Your task to perform on an android device: delete a single message in the gmail app Image 0: 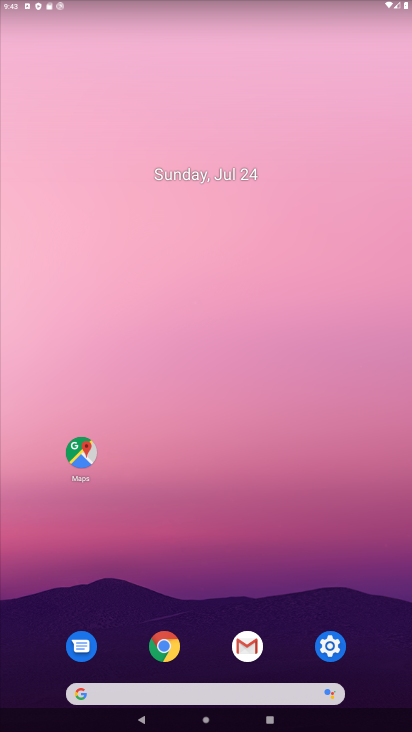
Step 0: click (247, 648)
Your task to perform on an android device: delete a single message in the gmail app Image 1: 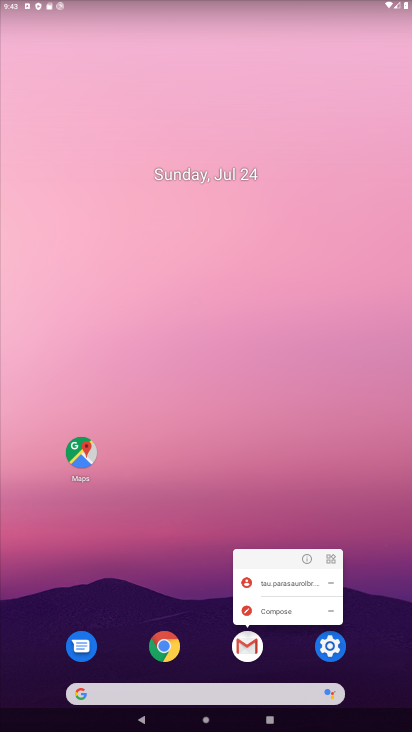
Step 1: click (247, 645)
Your task to perform on an android device: delete a single message in the gmail app Image 2: 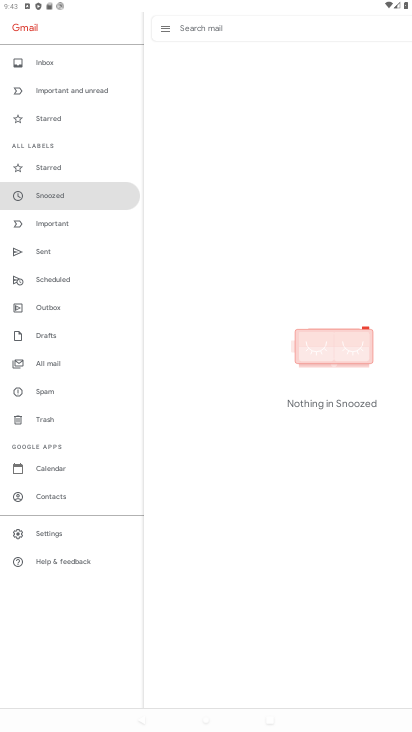
Step 2: click (58, 366)
Your task to perform on an android device: delete a single message in the gmail app Image 3: 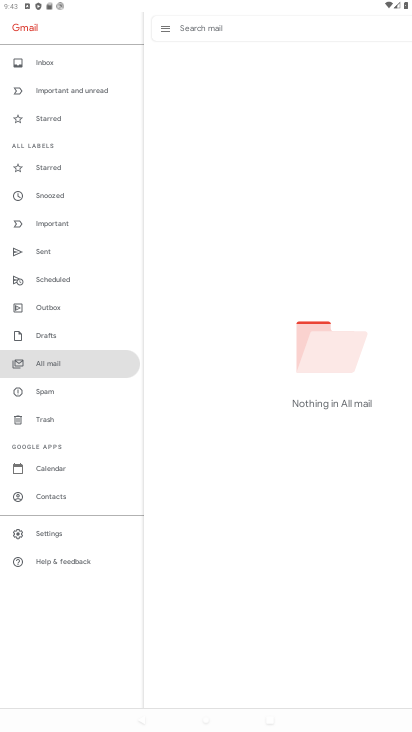
Step 3: task complete